Your task to perform on an android device: check data usage Image 0: 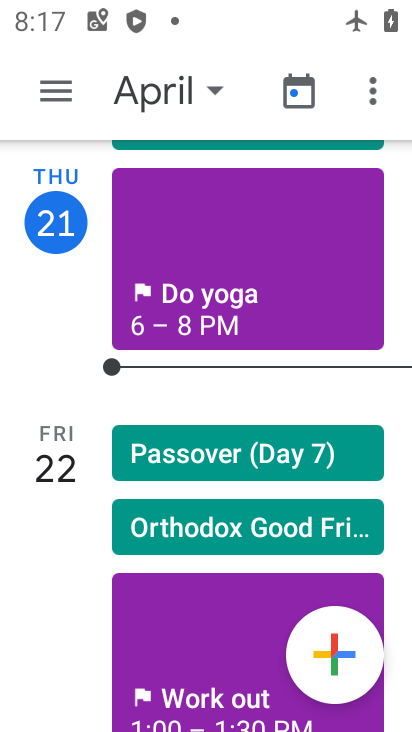
Step 0: press home button
Your task to perform on an android device: check data usage Image 1: 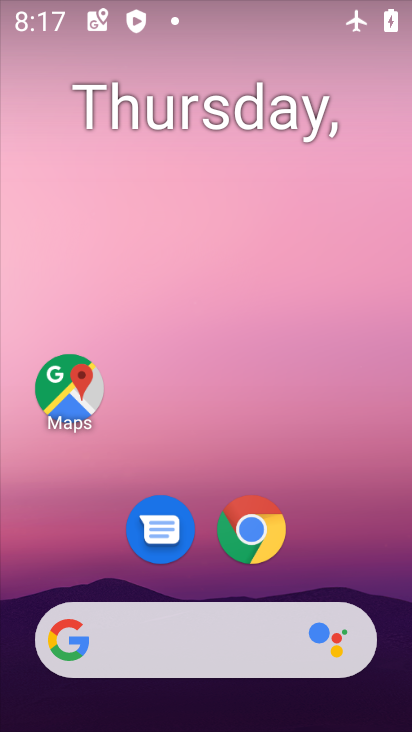
Step 1: drag from (153, 637) to (256, 39)
Your task to perform on an android device: check data usage Image 2: 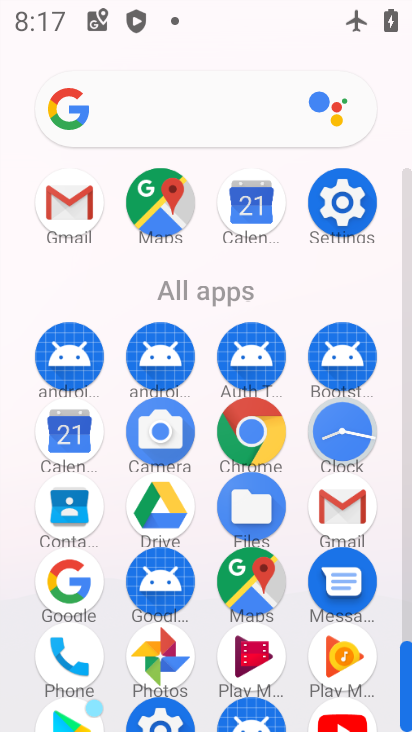
Step 2: click (338, 209)
Your task to perform on an android device: check data usage Image 3: 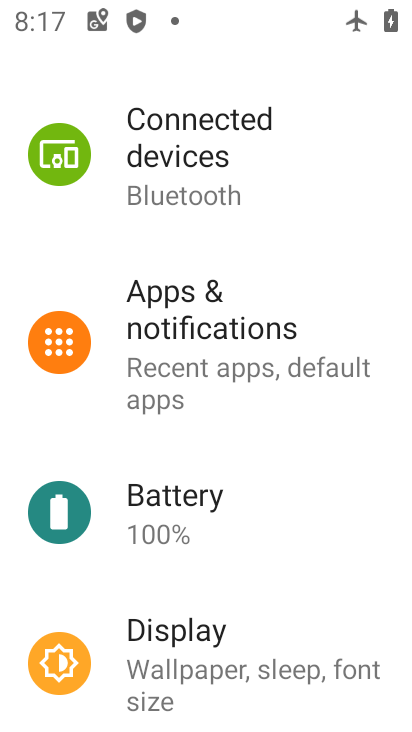
Step 3: drag from (313, 167) to (339, 706)
Your task to perform on an android device: check data usage Image 4: 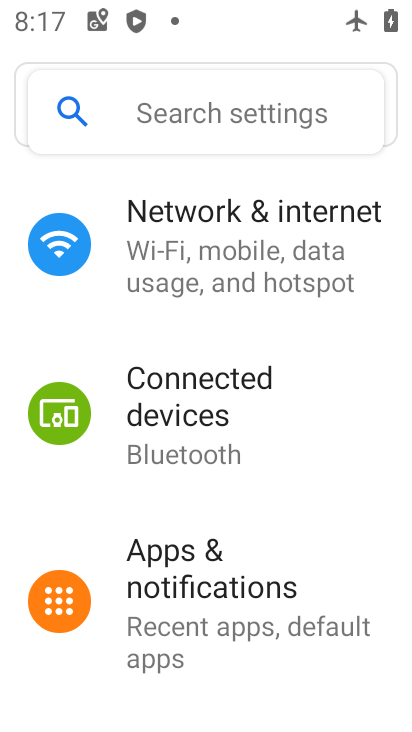
Step 4: click (234, 263)
Your task to perform on an android device: check data usage Image 5: 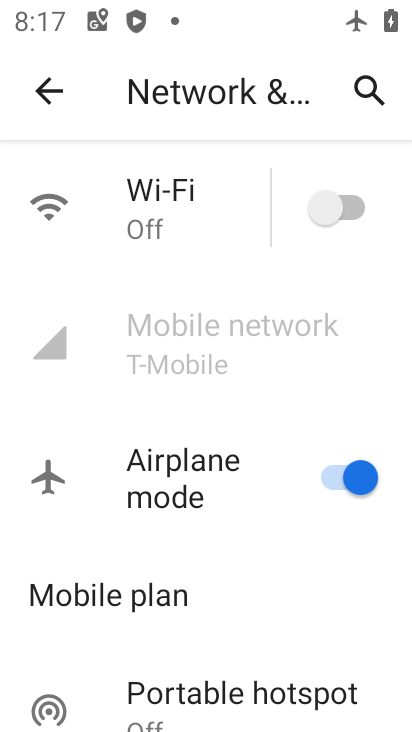
Step 5: click (172, 215)
Your task to perform on an android device: check data usage Image 6: 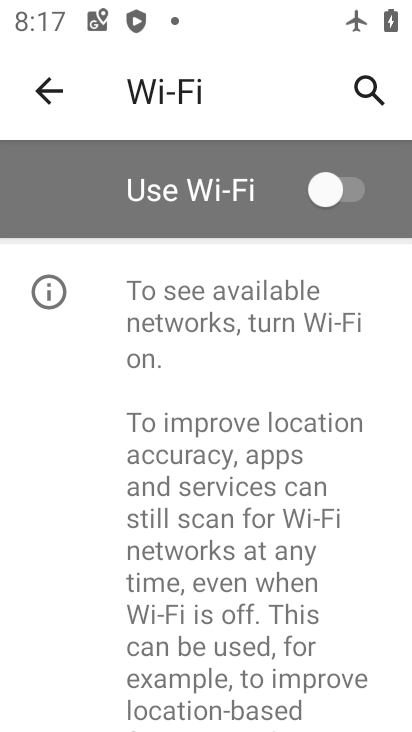
Step 6: drag from (193, 524) to (301, 15)
Your task to perform on an android device: check data usage Image 7: 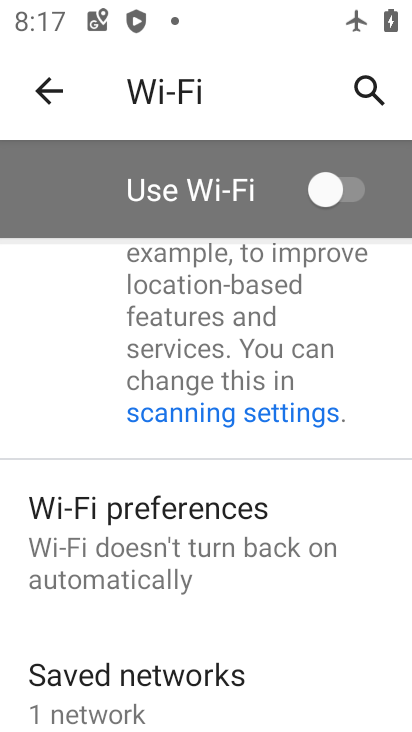
Step 7: drag from (233, 576) to (271, 118)
Your task to perform on an android device: check data usage Image 8: 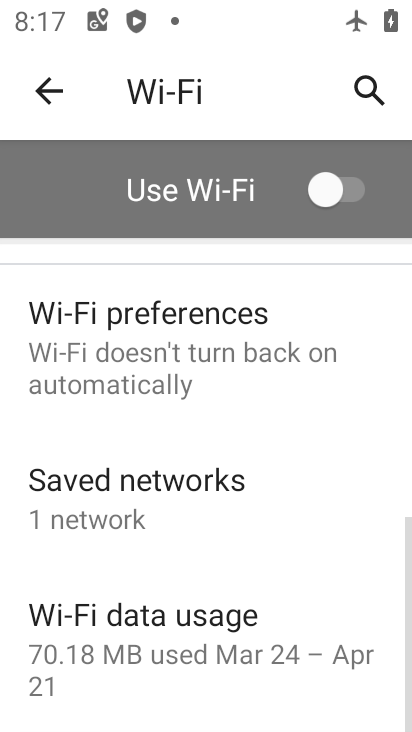
Step 8: click (209, 641)
Your task to perform on an android device: check data usage Image 9: 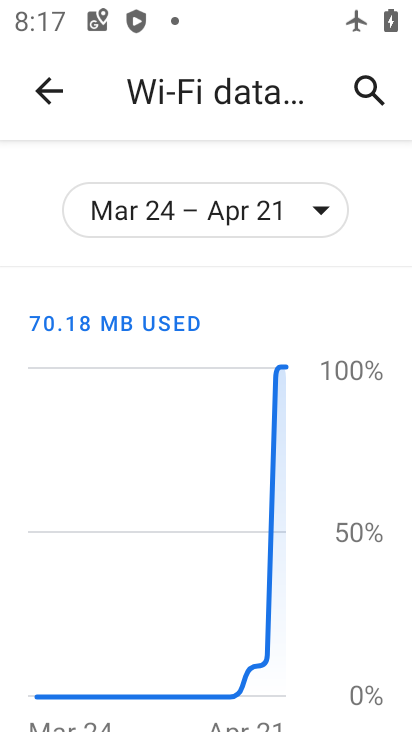
Step 9: task complete